Your task to perform on an android device: toggle data saver in the chrome app Image 0: 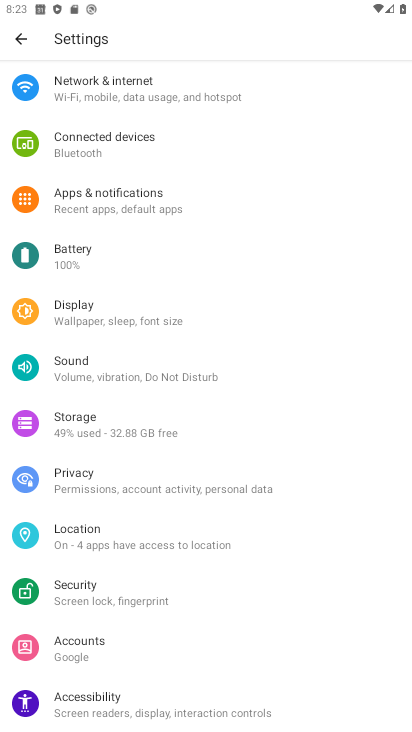
Step 0: drag from (189, 154) to (207, 731)
Your task to perform on an android device: toggle data saver in the chrome app Image 1: 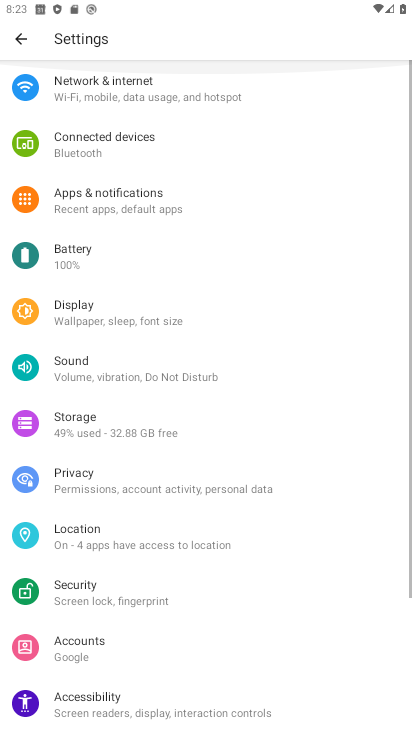
Step 1: drag from (234, 548) to (265, 109)
Your task to perform on an android device: toggle data saver in the chrome app Image 2: 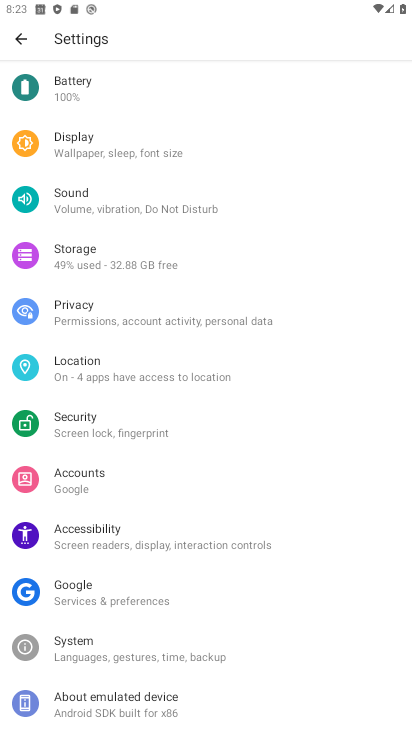
Step 2: drag from (199, 654) to (221, 189)
Your task to perform on an android device: toggle data saver in the chrome app Image 3: 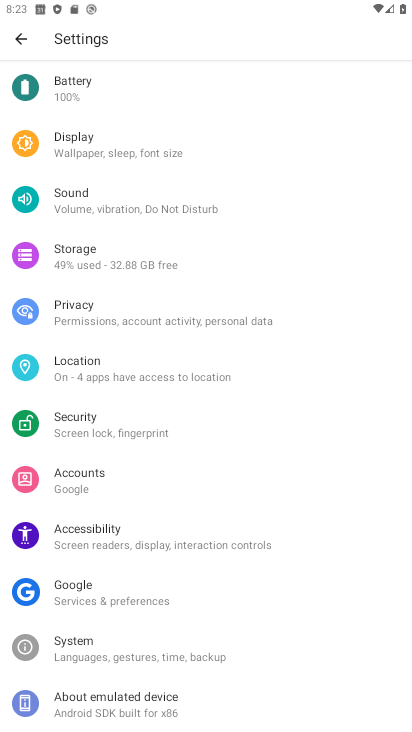
Step 3: drag from (195, 170) to (131, 717)
Your task to perform on an android device: toggle data saver in the chrome app Image 4: 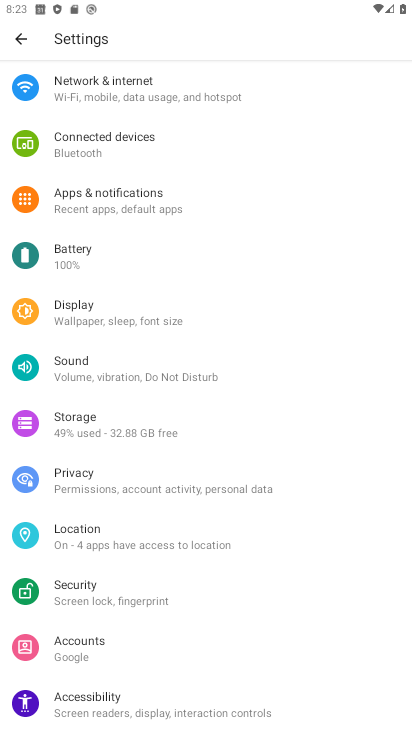
Step 4: click (15, 35)
Your task to perform on an android device: toggle data saver in the chrome app Image 5: 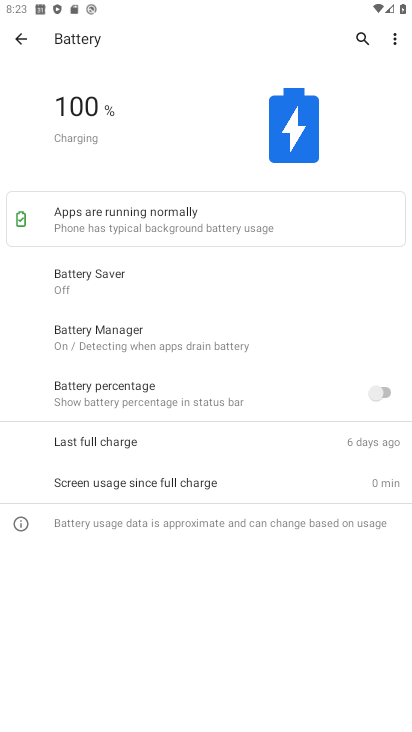
Step 5: click (16, 35)
Your task to perform on an android device: toggle data saver in the chrome app Image 6: 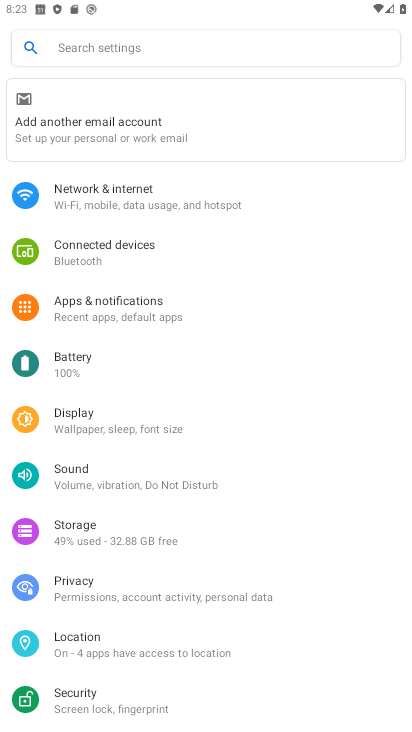
Step 6: drag from (181, 564) to (251, 271)
Your task to perform on an android device: toggle data saver in the chrome app Image 7: 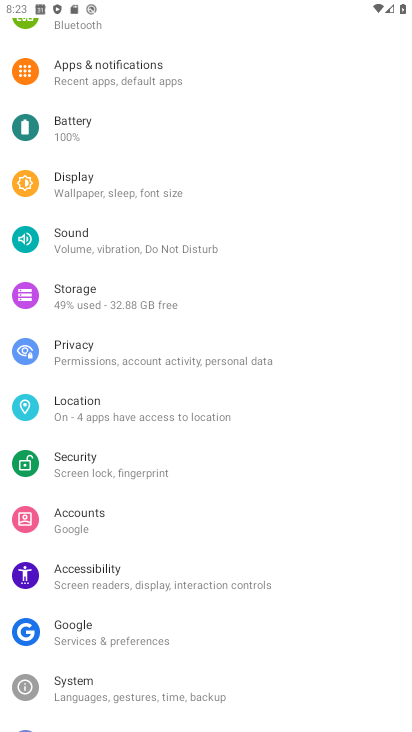
Step 7: press back button
Your task to perform on an android device: toggle data saver in the chrome app Image 8: 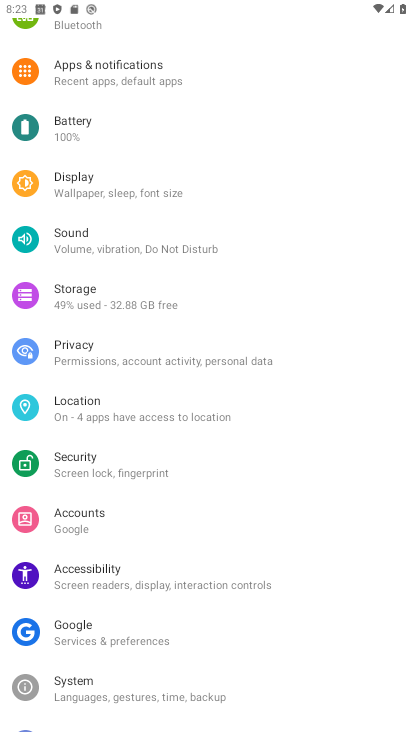
Step 8: press home button
Your task to perform on an android device: toggle data saver in the chrome app Image 9: 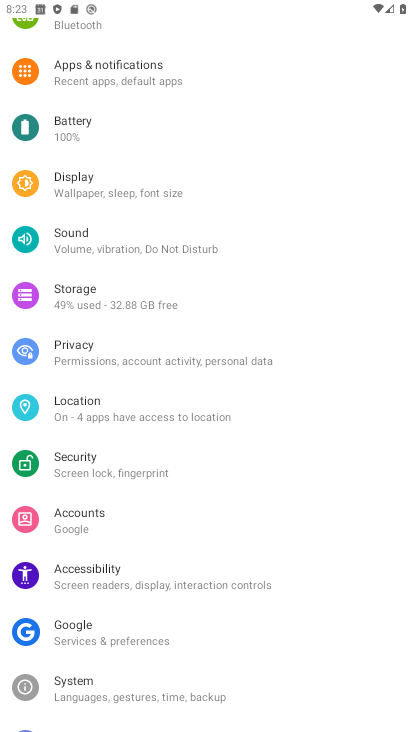
Step 9: press home button
Your task to perform on an android device: toggle data saver in the chrome app Image 10: 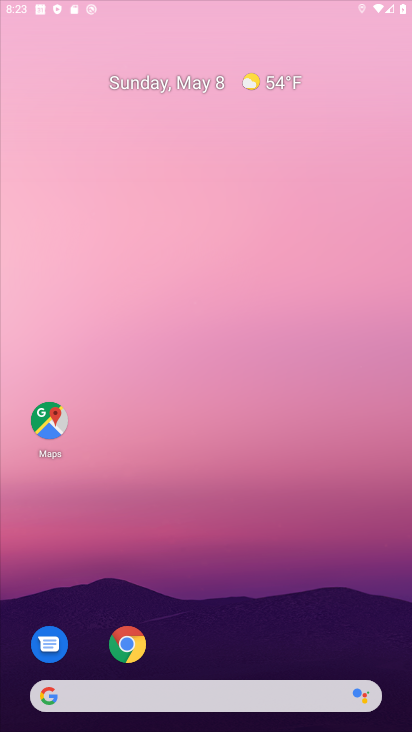
Step 10: drag from (172, 694) to (250, 21)
Your task to perform on an android device: toggle data saver in the chrome app Image 11: 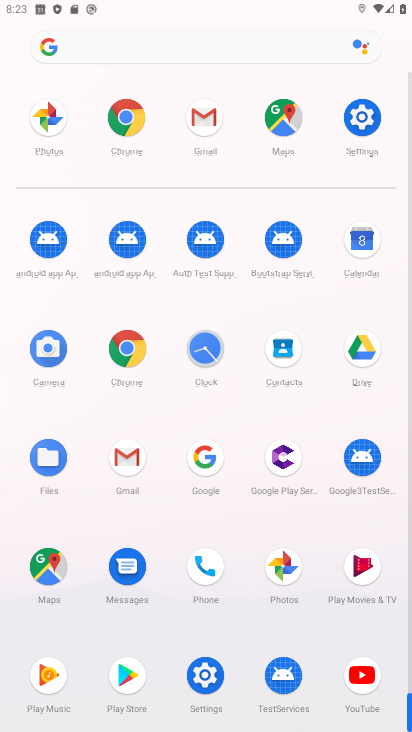
Step 11: click (131, 320)
Your task to perform on an android device: toggle data saver in the chrome app Image 12: 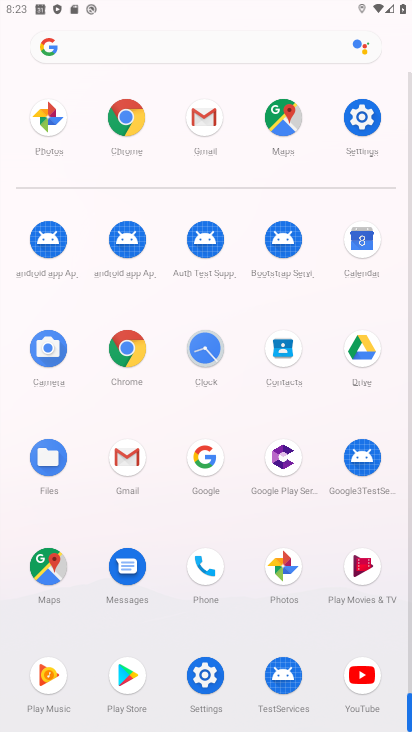
Step 12: click (127, 342)
Your task to perform on an android device: toggle data saver in the chrome app Image 13: 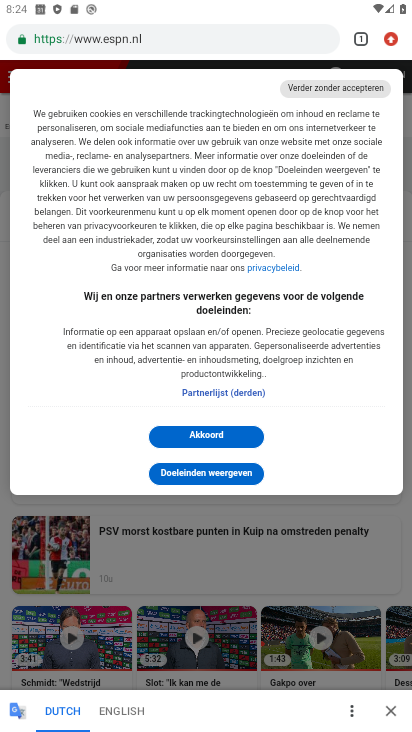
Step 13: click (397, 32)
Your task to perform on an android device: toggle data saver in the chrome app Image 14: 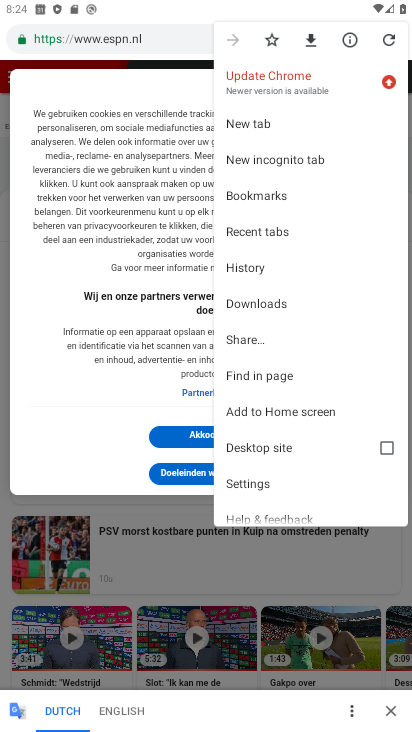
Step 14: click (241, 485)
Your task to perform on an android device: toggle data saver in the chrome app Image 15: 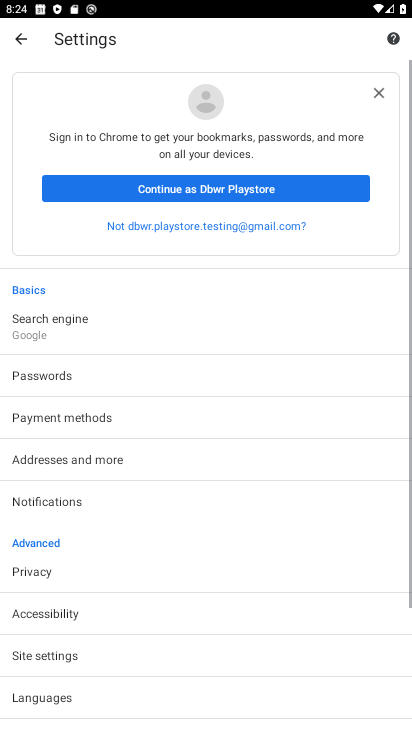
Step 15: drag from (167, 604) to (299, 154)
Your task to perform on an android device: toggle data saver in the chrome app Image 16: 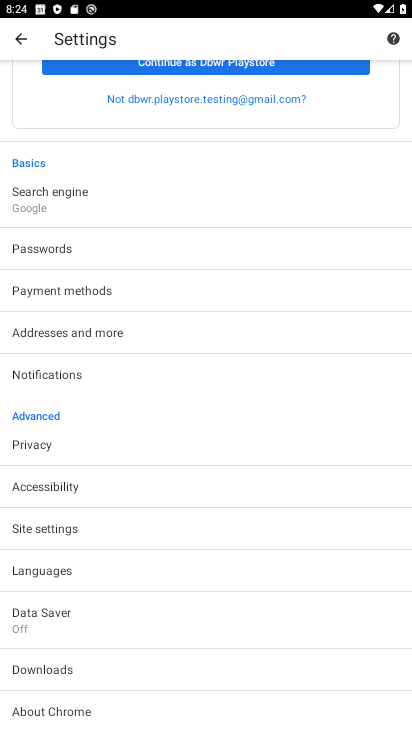
Step 16: click (44, 613)
Your task to perform on an android device: toggle data saver in the chrome app Image 17: 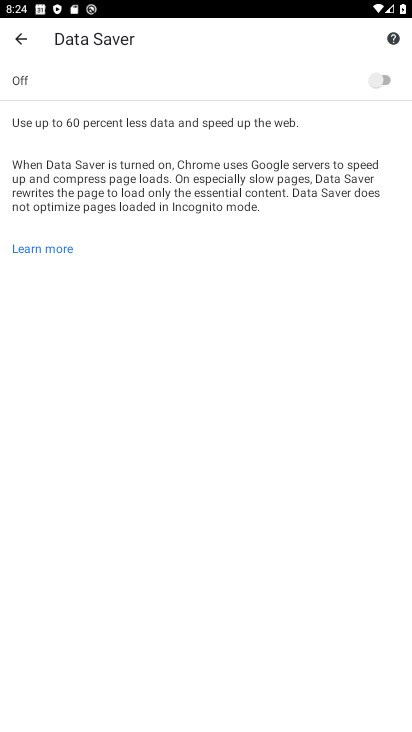
Step 17: click (373, 89)
Your task to perform on an android device: toggle data saver in the chrome app Image 18: 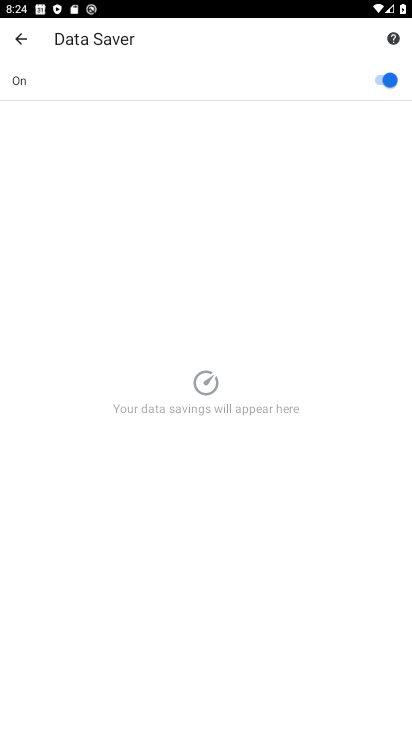
Step 18: task complete